Your task to perform on an android device: all mails in gmail Image 0: 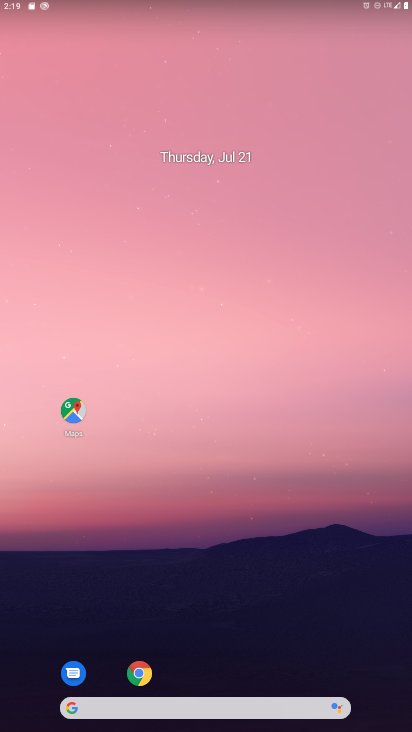
Step 0: drag from (251, 668) to (272, 260)
Your task to perform on an android device: all mails in gmail Image 1: 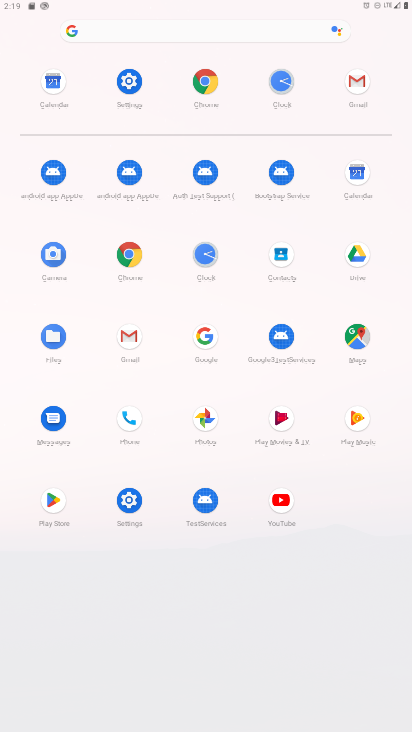
Step 1: click (362, 70)
Your task to perform on an android device: all mails in gmail Image 2: 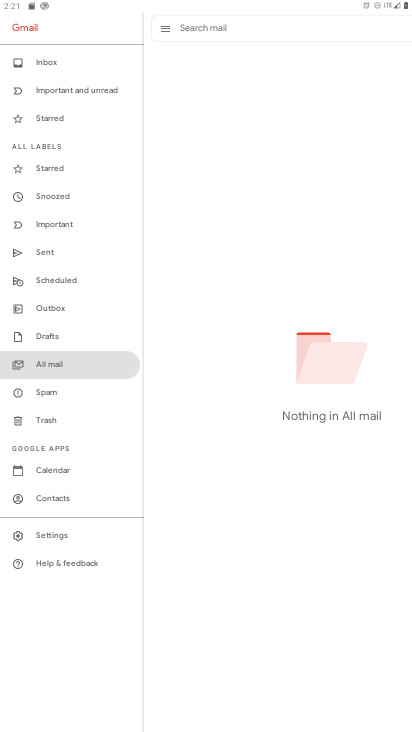
Step 2: task complete